Your task to perform on an android device: Open the map Image 0: 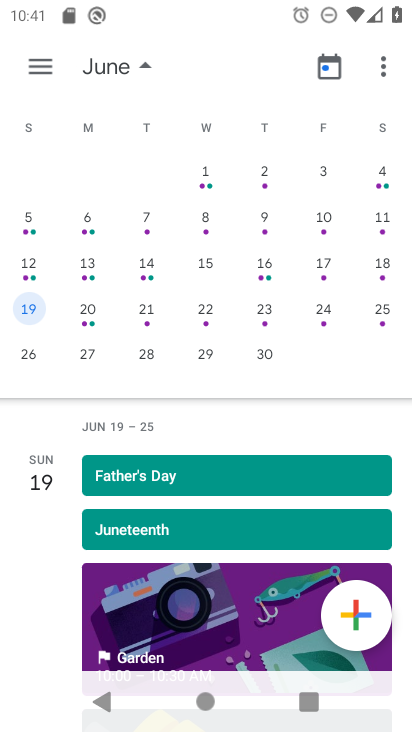
Step 0: press home button
Your task to perform on an android device: Open the map Image 1: 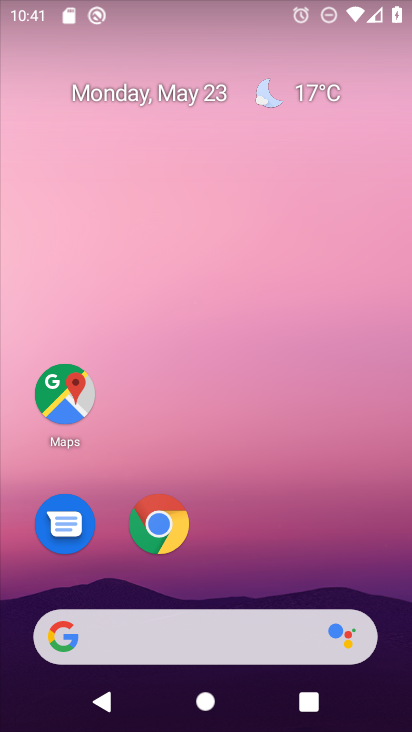
Step 1: click (63, 398)
Your task to perform on an android device: Open the map Image 2: 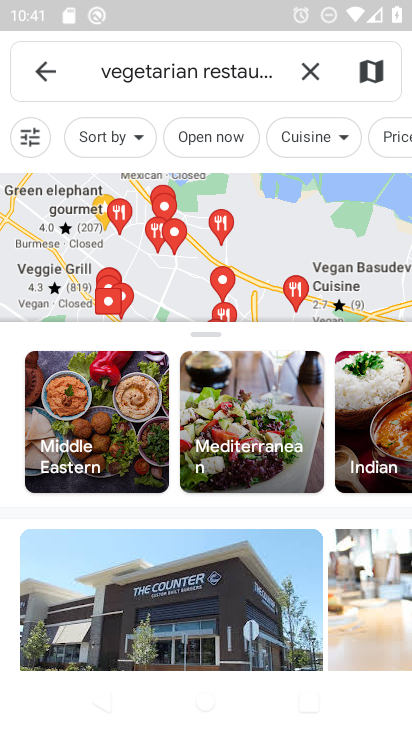
Step 2: task complete